Your task to perform on an android device: Open Wikipedia Image 0: 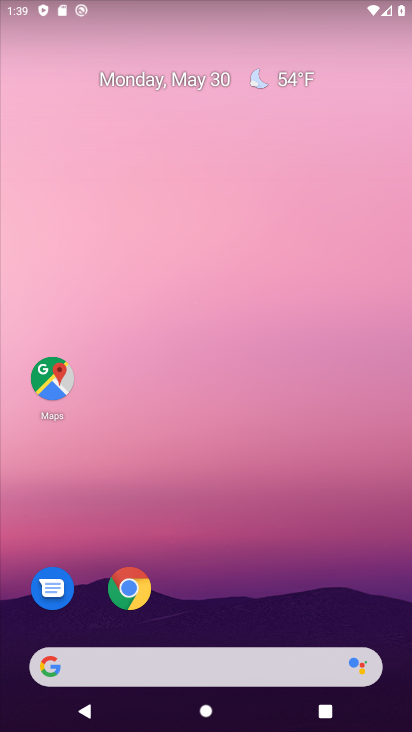
Step 0: click (134, 590)
Your task to perform on an android device: Open Wikipedia Image 1: 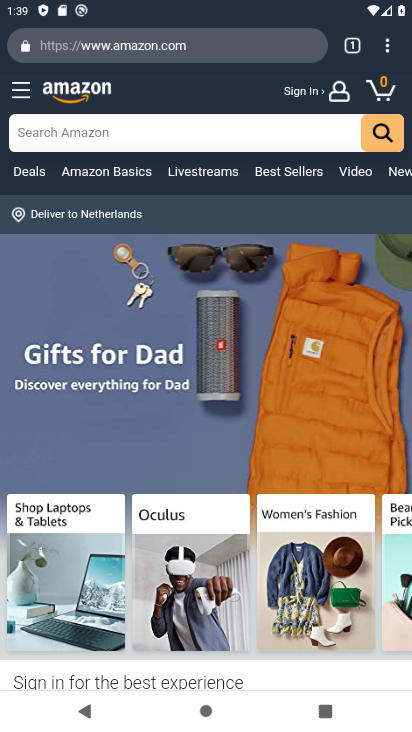
Step 1: press back button
Your task to perform on an android device: Open Wikipedia Image 2: 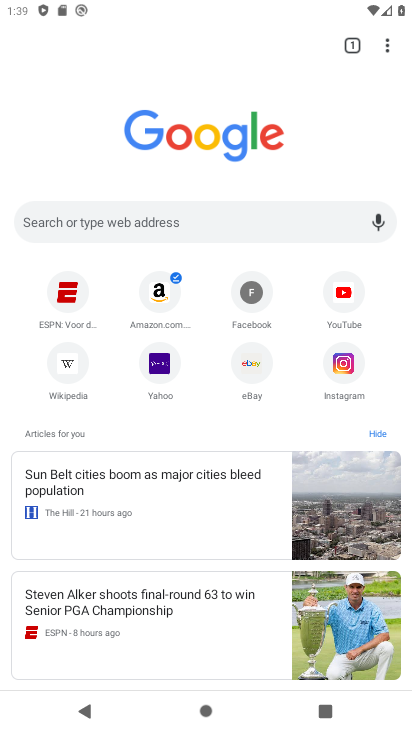
Step 2: click (63, 365)
Your task to perform on an android device: Open Wikipedia Image 3: 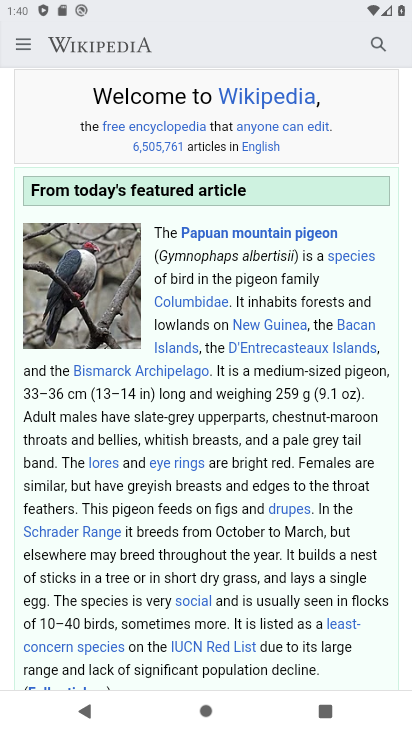
Step 3: task complete